Your task to perform on an android device: Go to settings Image 0: 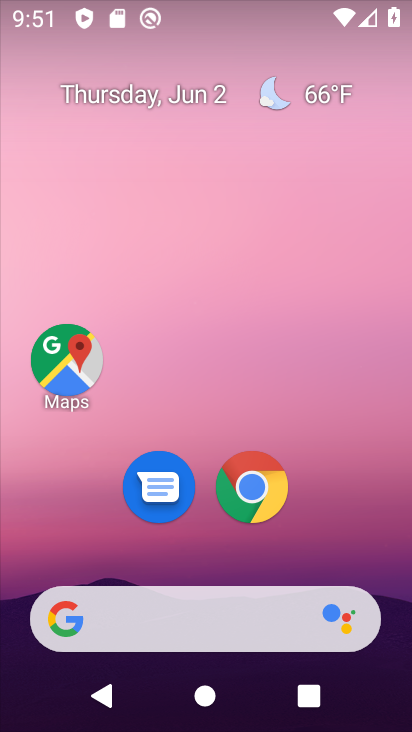
Step 0: drag from (226, 725) to (229, 74)
Your task to perform on an android device: Go to settings Image 1: 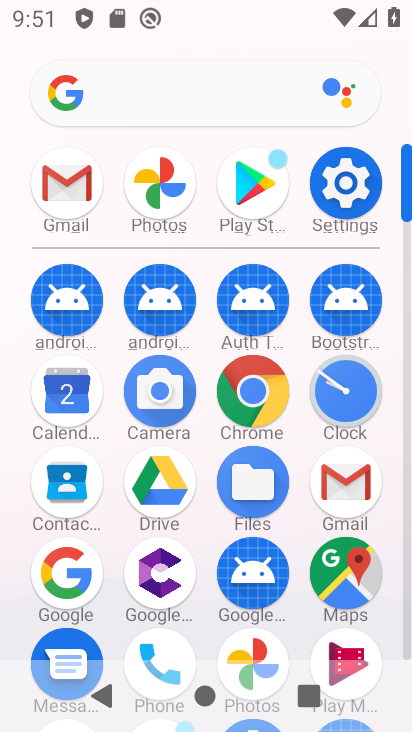
Step 1: click (343, 191)
Your task to perform on an android device: Go to settings Image 2: 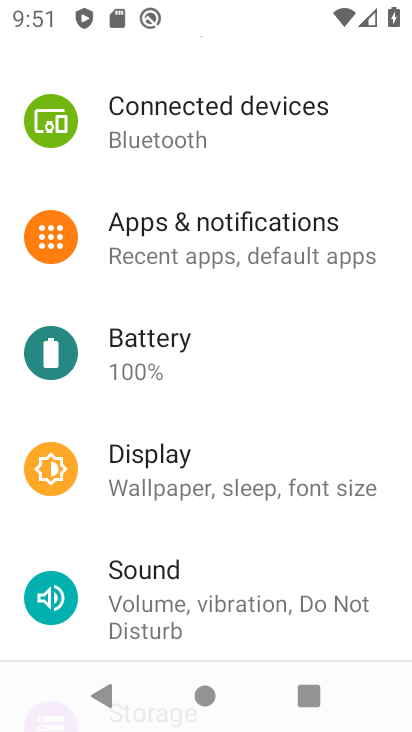
Step 2: task complete